Your task to perform on an android device: change text size in settings app Image 0: 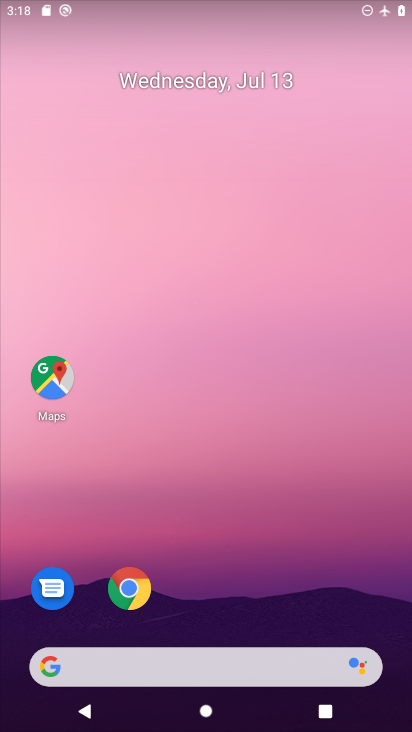
Step 0: drag from (194, 615) to (240, 115)
Your task to perform on an android device: change text size in settings app Image 1: 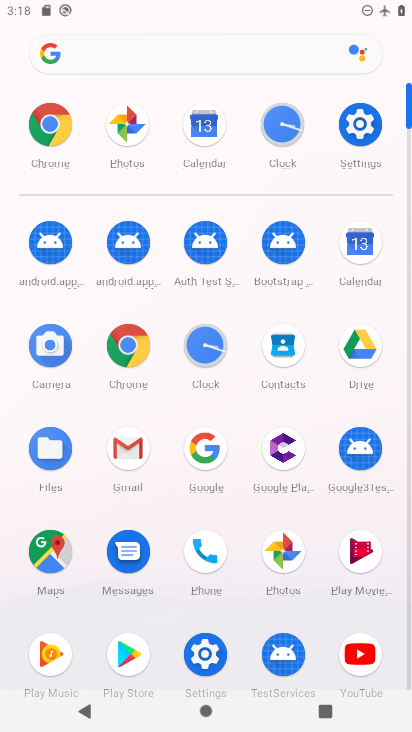
Step 1: click (363, 138)
Your task to perform on an android device: change text size in settings app Image 2: 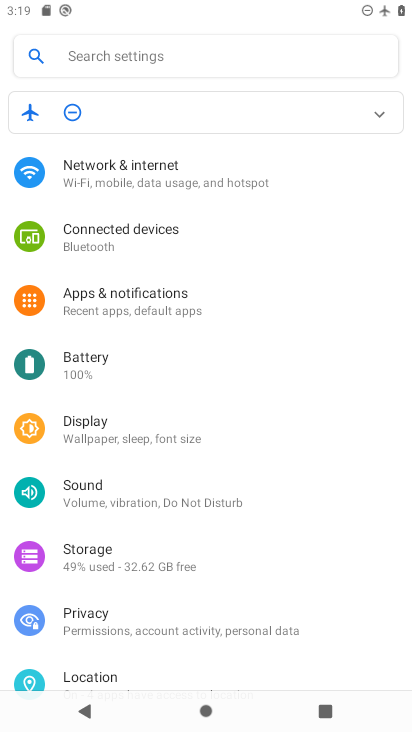
Step 2: click (112, 426)
Your task to perform on an android device: change text size in settings app Image 3: 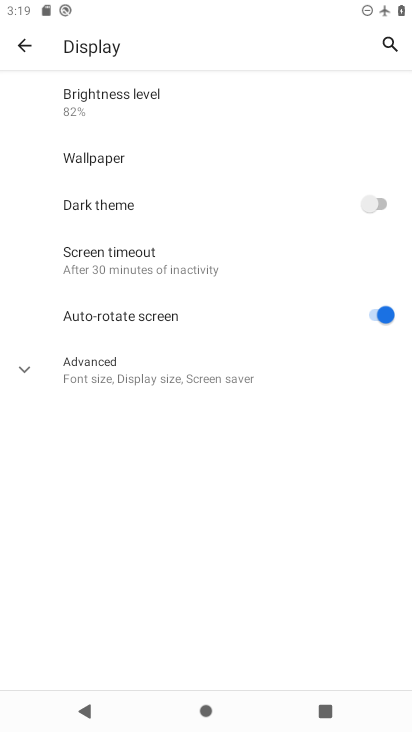
Step 3: click (125, 378)
Your task to perform on an android device: change text size in settings app Image 4: 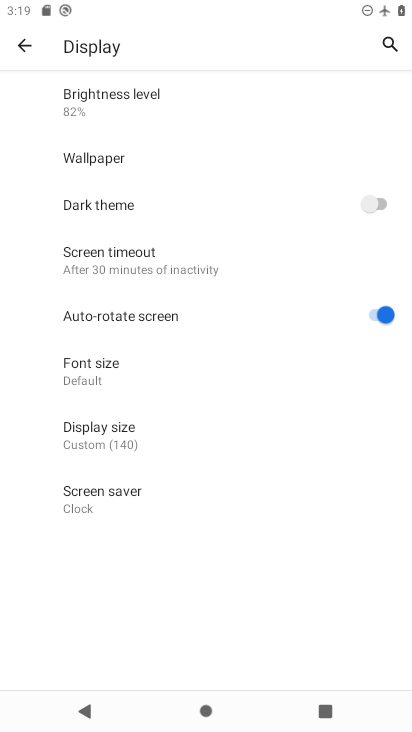
Step 4: click (101, 381)
Your task to perform on an android device: change text size in settings app Image 5: 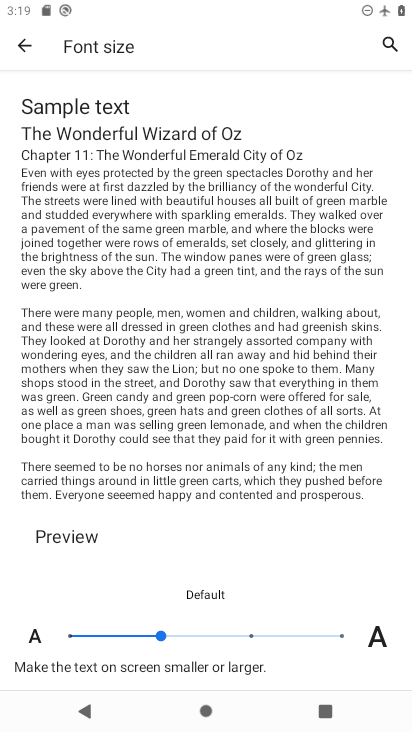
Step 5: click (250, 630)
Your task to perform on an android device: change text size in settings app Image 6: 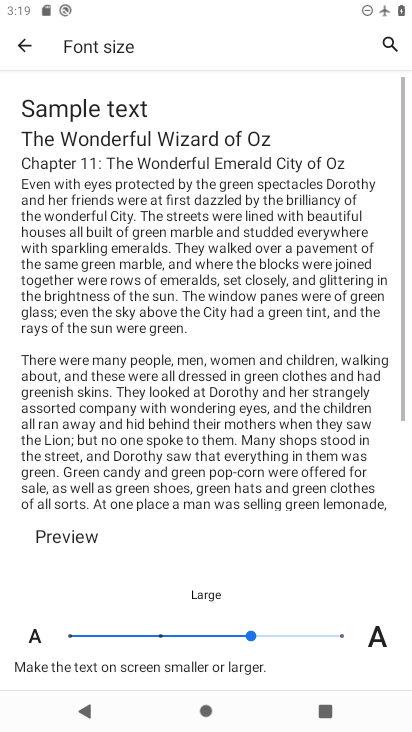
Step 6: task complete